Your task to perform on an android device: turn on showing notifications on the lock screen Image 0: 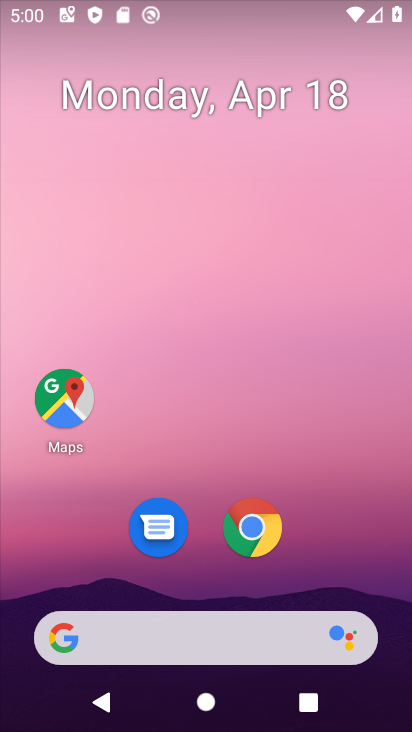
Step 0: drag from (245, 608) to (274, 260)
Your task to perform on an android device: turn on showing notifications on the lock screen Image 1: 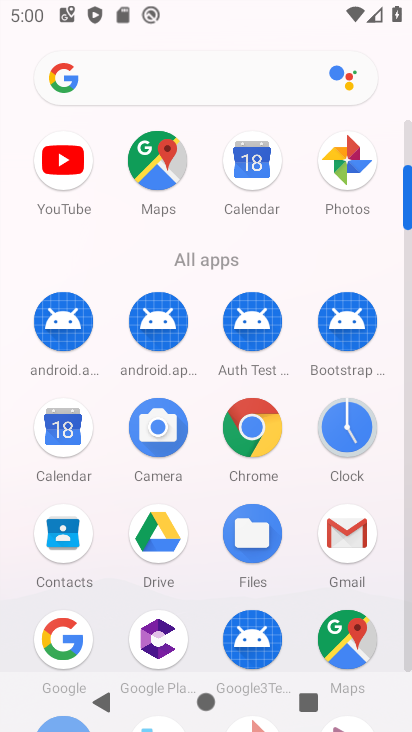
Step 1: drag from (207, 650) to (207, 307)
Your task to perform on an android device: turn on showing notifications on the lock screen Image 2: 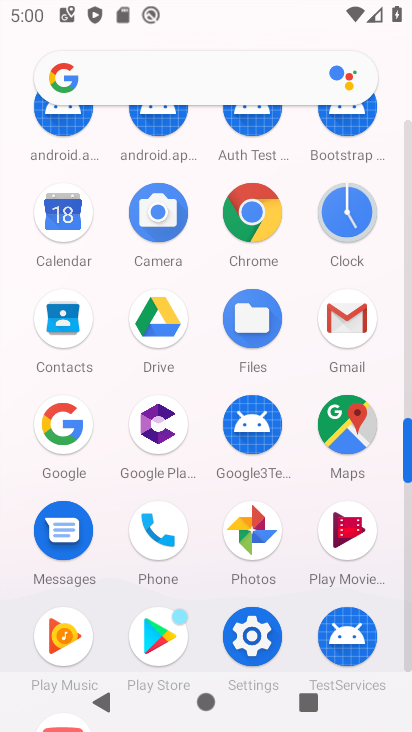
Step 2: click (253, 632)
Your task to perform on an android device: turn on showing notifications on the lock screen Image 3: 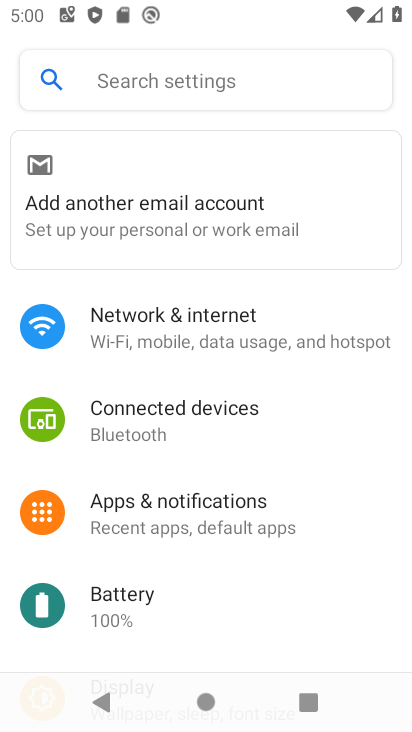
Step 3: drag from (166, 620) to (166, 291)
Your task to perform on an android device: turn on showing notifications on the lock screen Image 4: 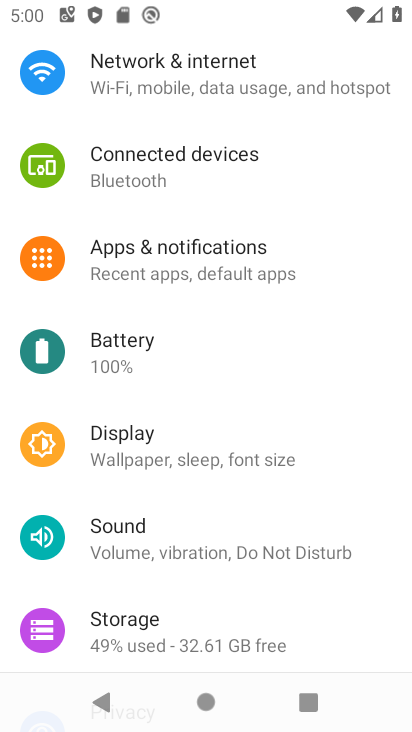
Step 4: drag from (185, 641) to (160, 393)
Your task to perform on an android device: turn on showing notifications on the lock screen Image 5: 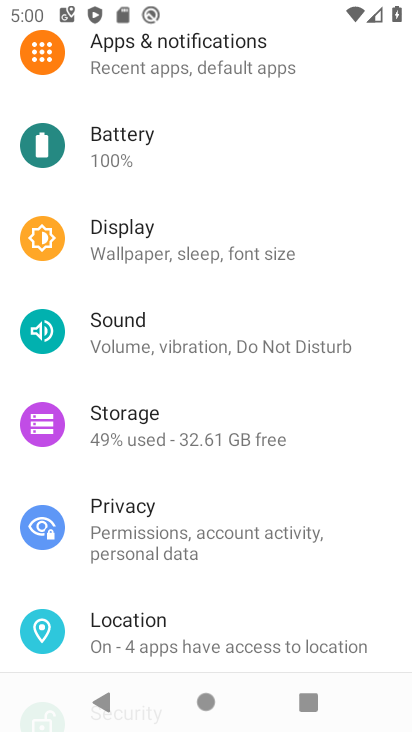
Step 5: click (137, 528)
Your task to perform on an android device: turn on showing notifications on the lock screen Image 6: 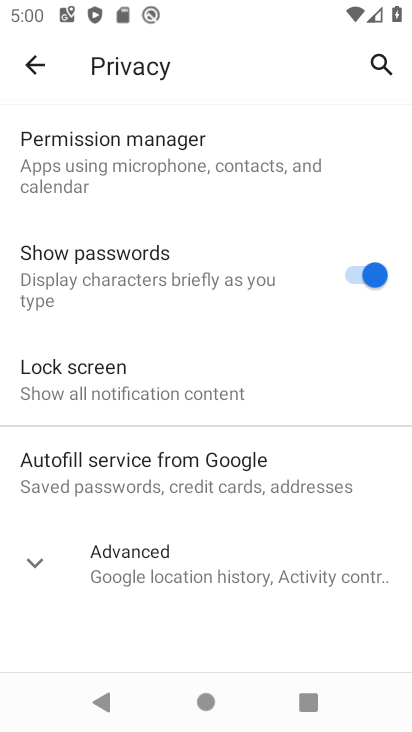
Step 6: click (127, 385)
Your task to perform on an android device: turn on showing notifications on the lock screen Image 7: 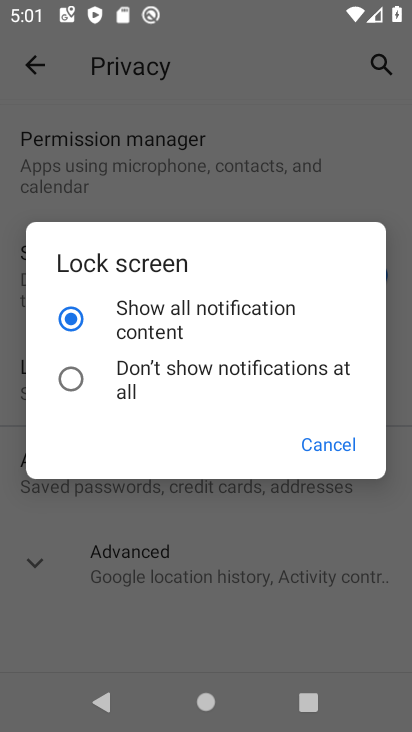
Step 7: task complete